Your task to perform on an android device: Open maps Image 0: 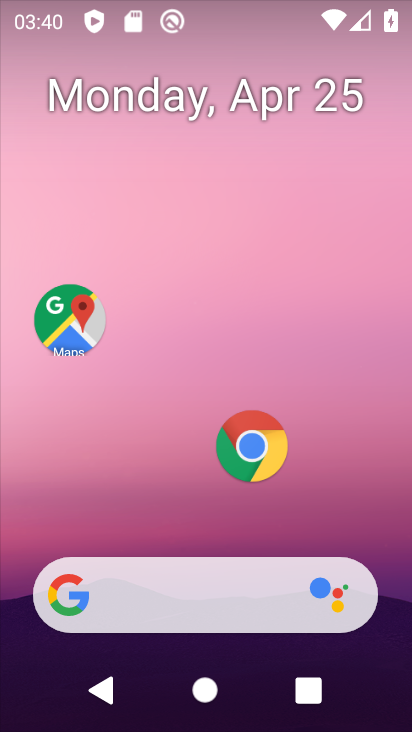
Step 0: click (67, 314)
Your task to perform on an android device: Open maps Image 1: 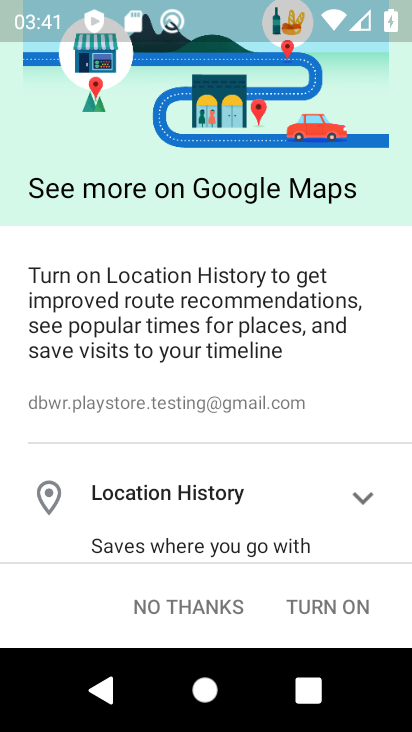
Step 1: click (292, 602)
Your task to perform on an android device: Open maps Image 2: 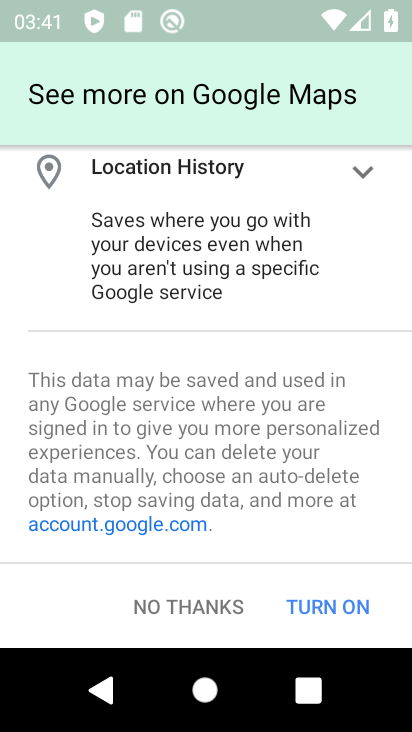
Step 2: click (292, 602)
Your task to perform on an android device: Open maps Image 3: 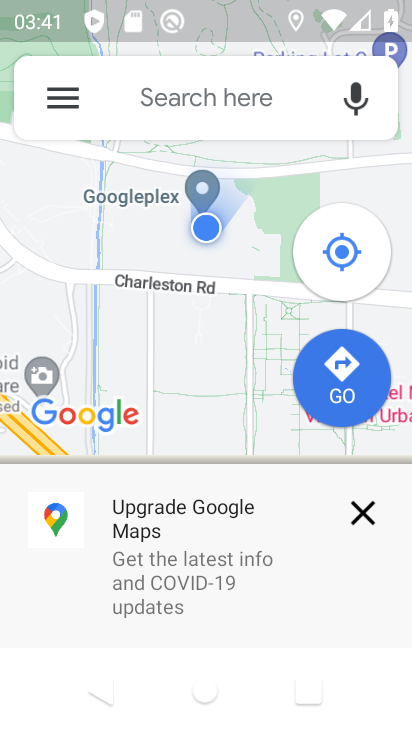
Step 3: task complete